Your task to perform on an android device: Go to wifi settings Image 0: 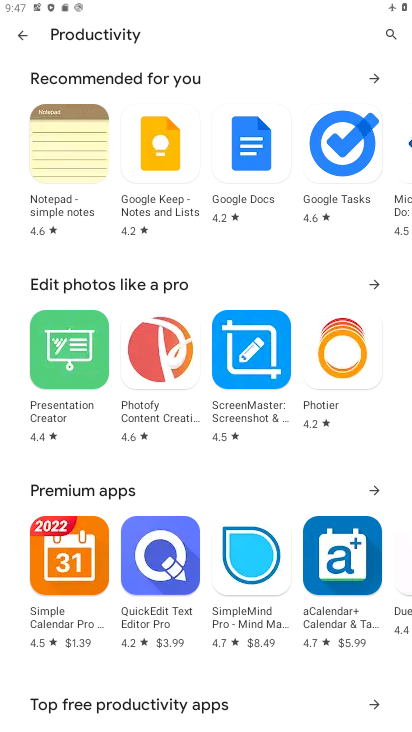
Step 0: press home button
Your task to perform on an android device: Go to wifi settings Image 1: 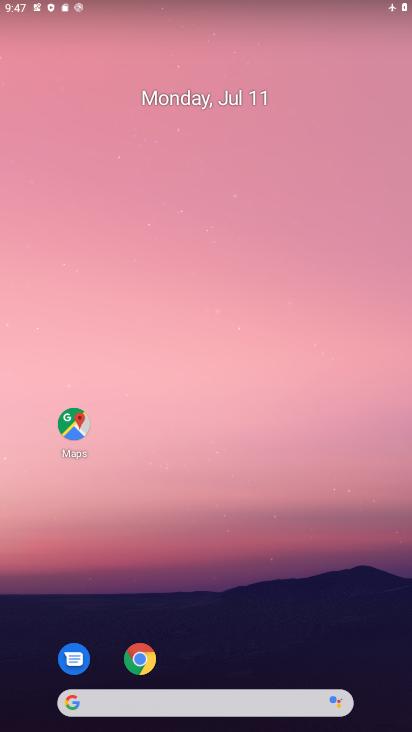
Step 1: drag from (190, 715) to (179, 155)
Your task to perform on an android device: Go to wifi settings Image 2: 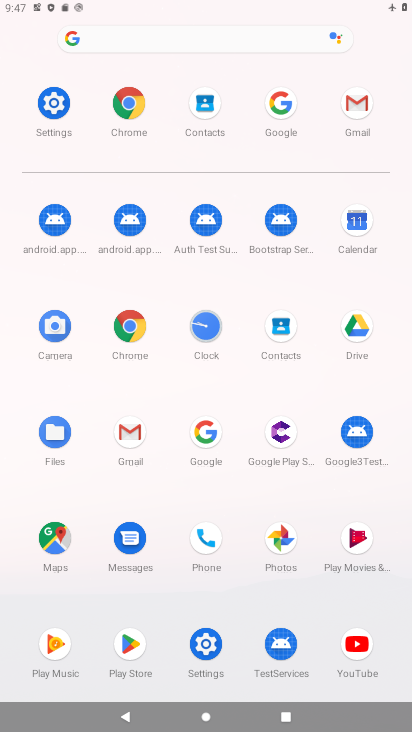
Step 2: click (58, 105)
Your task to perform on an android device: Go to wifi settings Image 3: 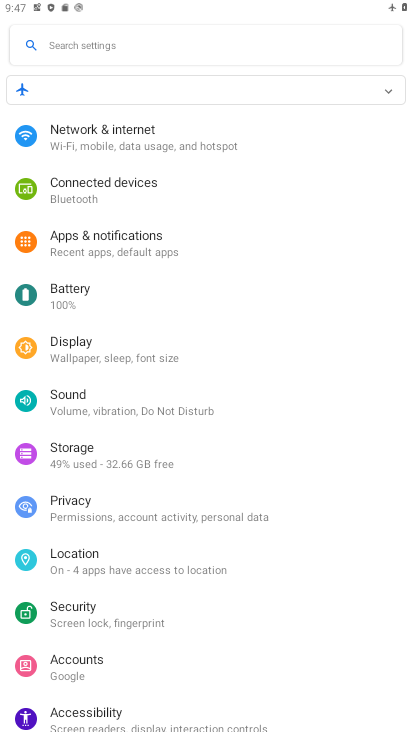
Step 3: click (102, 135)
Your task to perform on an android device: Go to wifi settings Image 4: 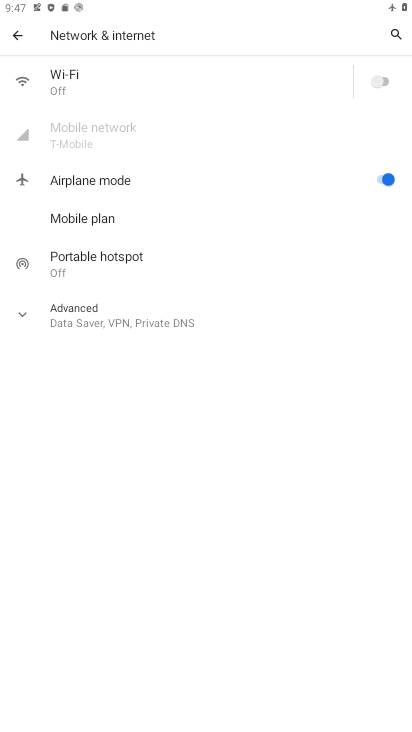
Step 4: click (55, 75)
Your task to perform on an android device: Go to wifi settings Image 5: 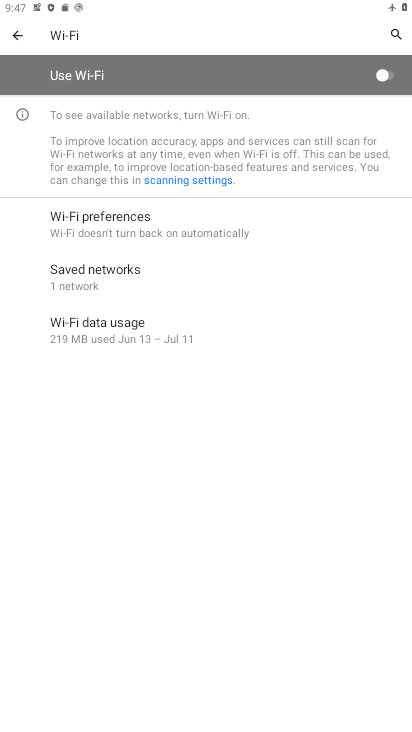
Step 5: task complete